Your task to perform on an android device: turn on improve location accuracy Image 0: 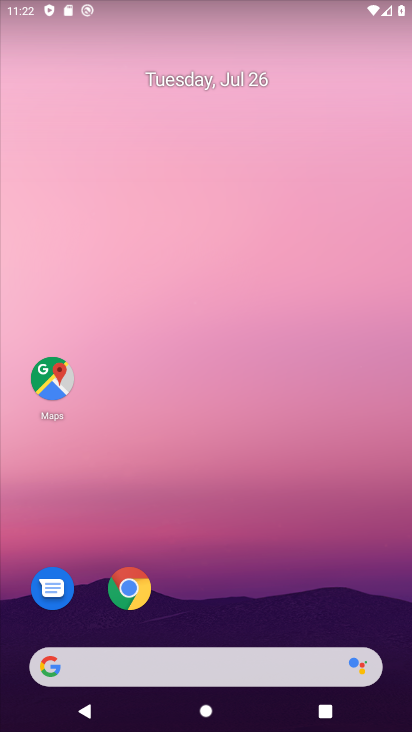
Step 0: drag from (35, 689) to (213, 117)
Your task to perform on an android device: turn on improve location accuracy Image 1: 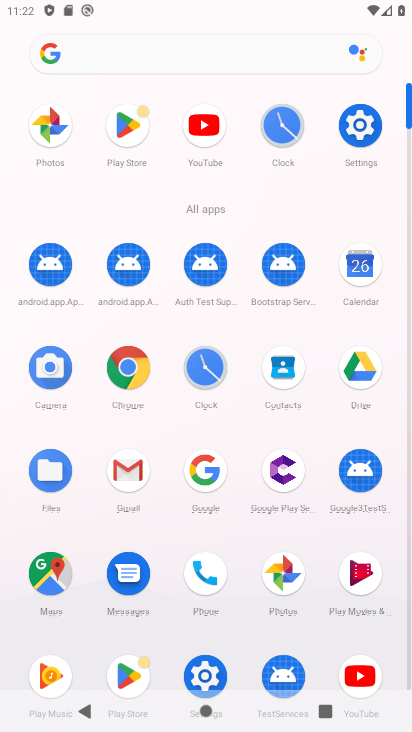
Step 1: click (210, 682)
Your task to perform on an android device: turn on improve location accuracy Image 2: 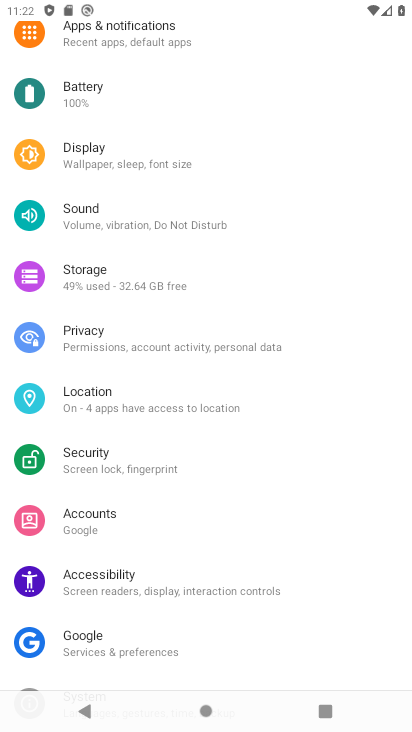
Step 2: click (91, 391)
Your task to perform on an android device: turn on improve location accuracy Image 3: 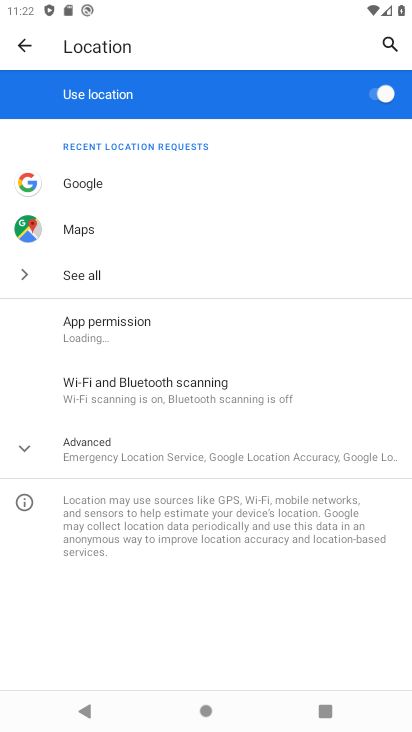
Step 3: click (116, 448)
Your task to perform on an android device: turn on improve location accuracy Image 4: 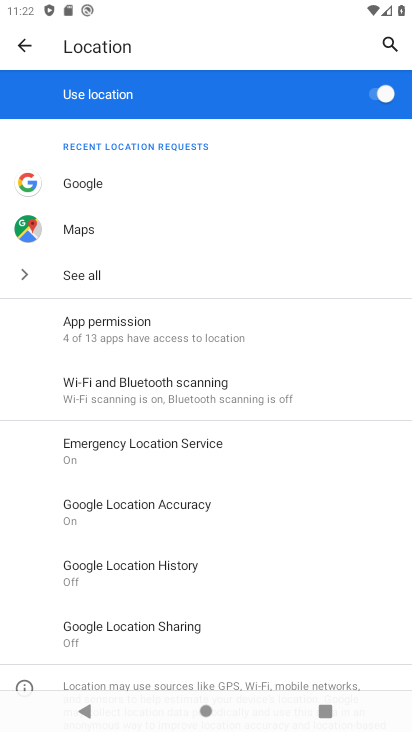
Step 4: task complete